Your task to perform on an android device: Open accessibility settings Image 0: 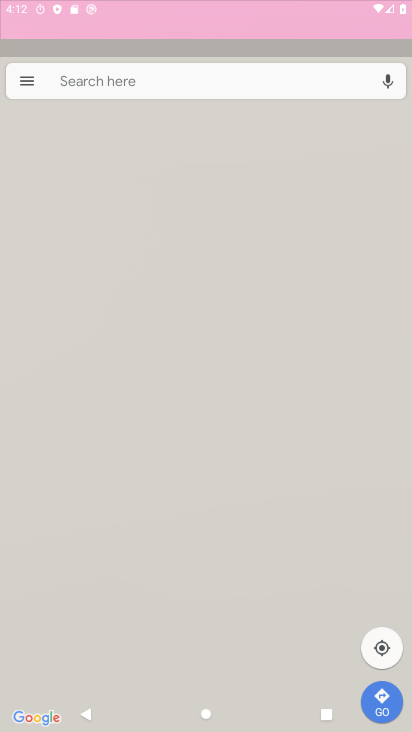
Step 0: click (128, 612)
Your task to perform on an android device: Open accessibility settings Image 1: 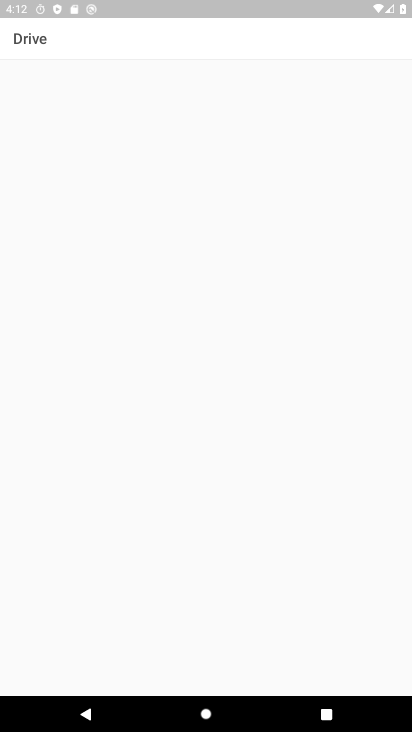
Step 1: press home button
Your task to perform on an android device: Open accessibility settings Image 2: 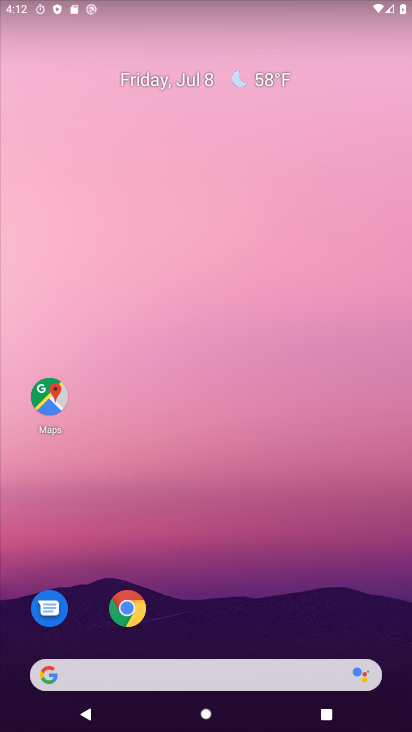
Step 2: drag from (228, 586) to (169, 688)
Your task to perform on an android device: Open accessibility settings Image 3: 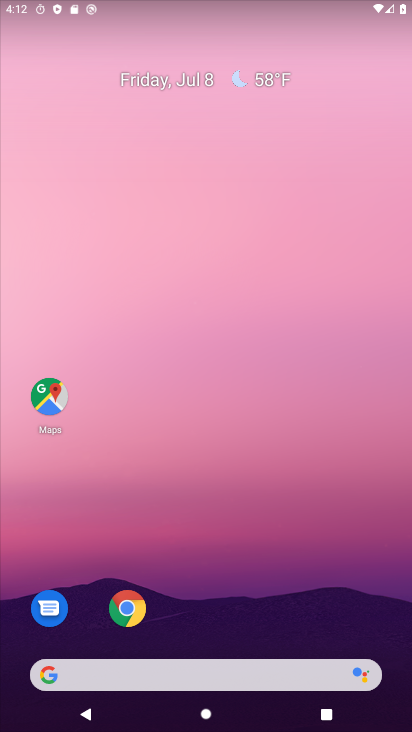
Step 3: drag from (273, 590) to (149, 10)
Your task to perform on an android device: Open accessibility settings Image 4: 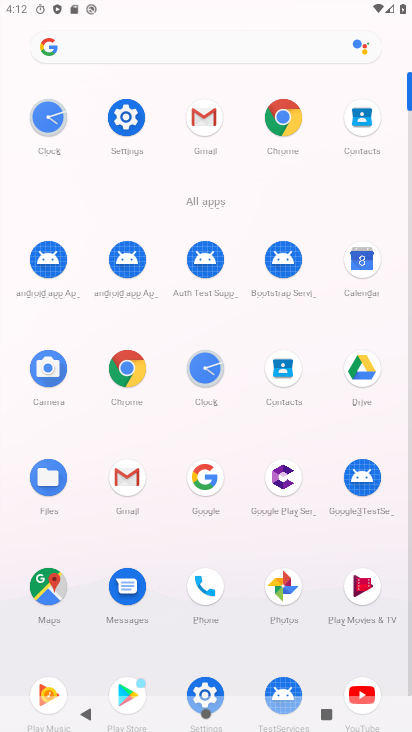
Step 4: click (127, 114)
Your task to perform on an android device: Open accessibility settings Image 5: 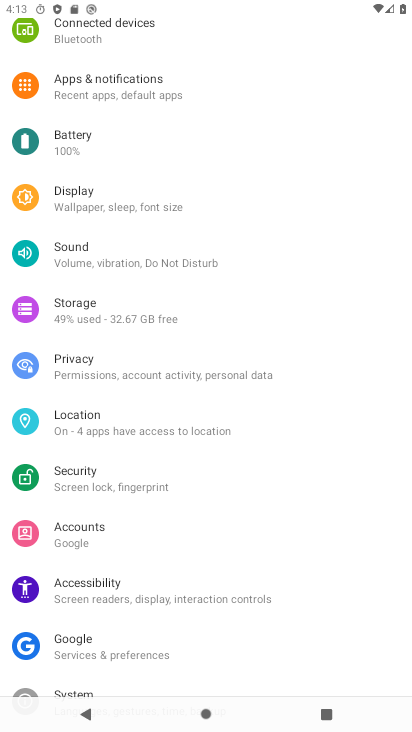
Step 5: click (154, 592)
Your task to perform on an android device: Open accessibility settings Image 6: 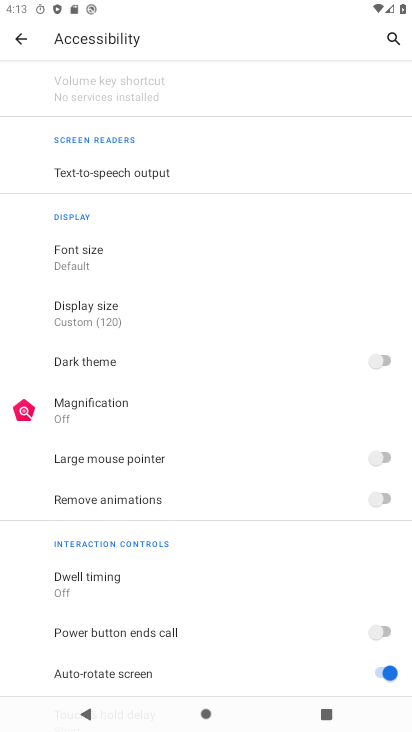
Step 6: task complete